Your task to perform on an android device: When is my next meeting? Image 0: 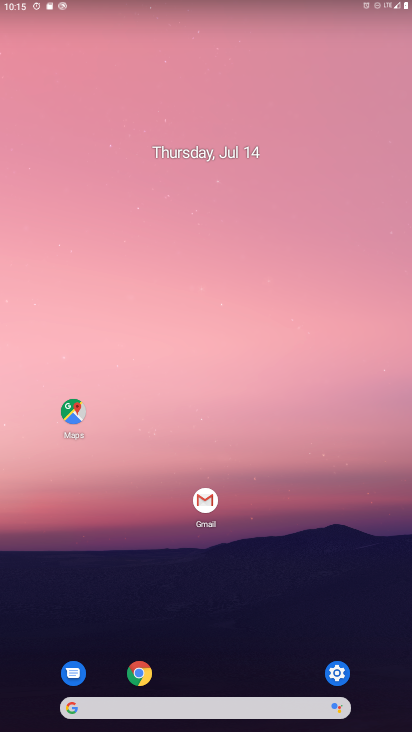
Step 0: press home button
Your task to perform on an android device: When is my next meeting? Image 1: 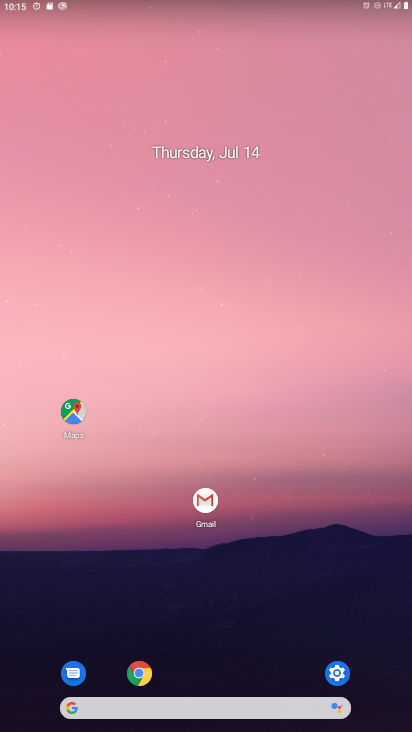
Step 1: drag from (208, 719) to (187, 148)
Your task to perform on an android device: When is my next meeting? Image 2: 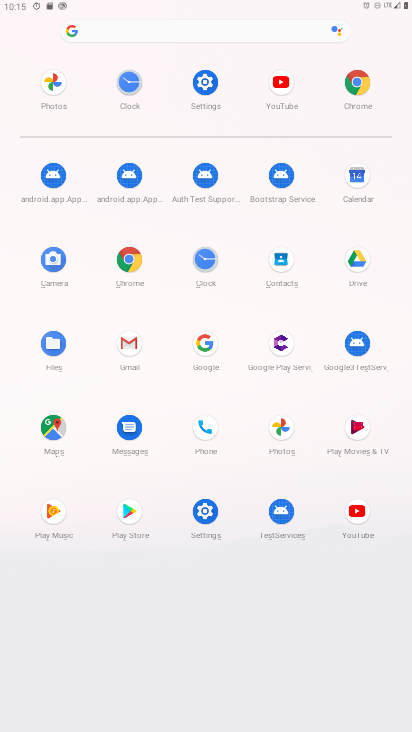
Step 2: click (349, 182)
Your task to perform on an android device: When is my next meeting? Image 3: 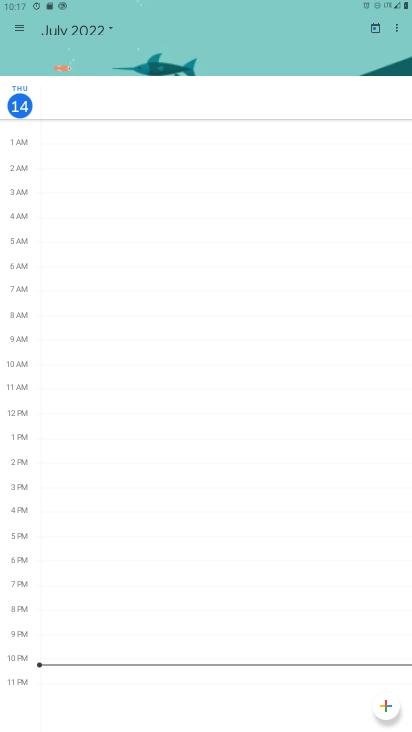
Step 3: task complete